Your task to perform on an android device: What's the weather going to be tomorrow? Image 0: 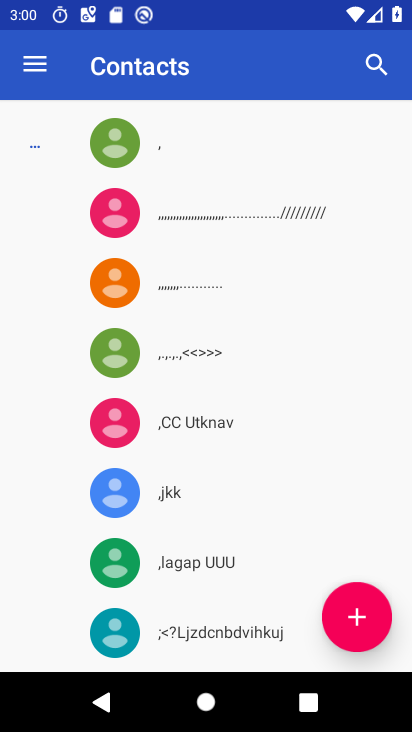
Step 0: press home button
Your task to perform on an android device: What's the weather going to be tomorrow? Image 1: 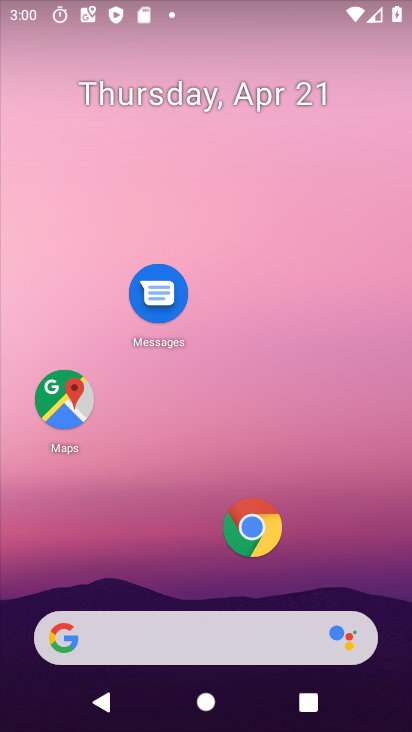
Step 1: drag from (217, 571) to (322, 245)
Your task to perform on an android device: What's the weather going to be tomorrow? Image 2: 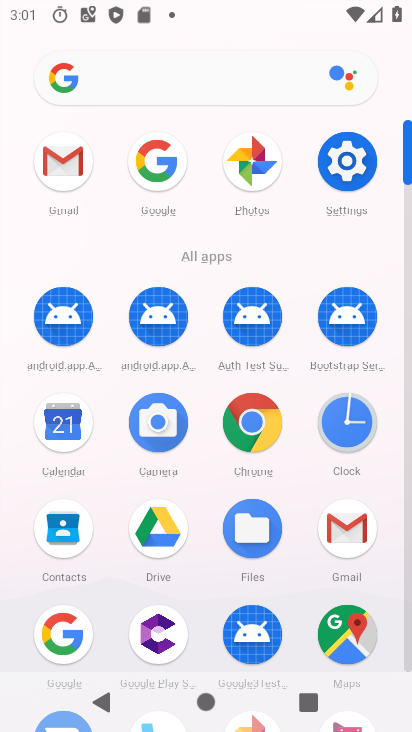
Step 2: click (153, 171)
Your task to perform on an android device: What's the weather going to be tomorrow? Image 3: 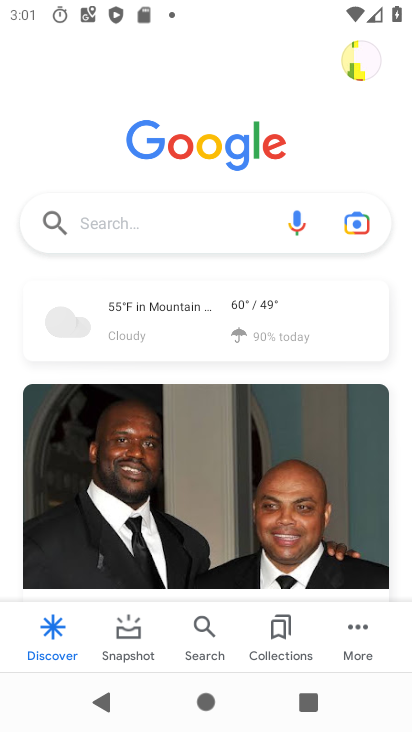
Step 3: click (143, 326)
Your task to perform on an android device: What's the weather going to be tomorrow? Image 4: 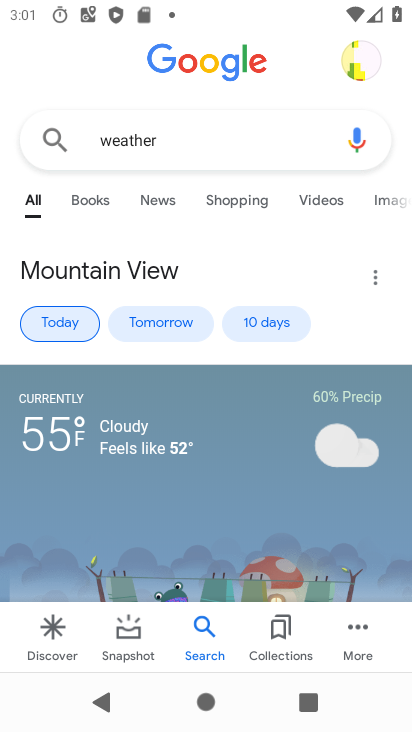
Step 4: click (155, 326)
Your task to perform on an android device: What's the weather going to be tomorrow? Image 5: 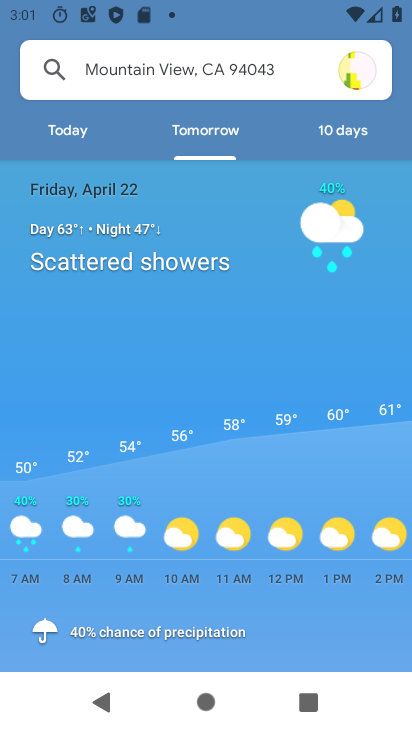
Step 5: task complete